Your task to perform on an android device: add a contact in the contacts app Image 0: 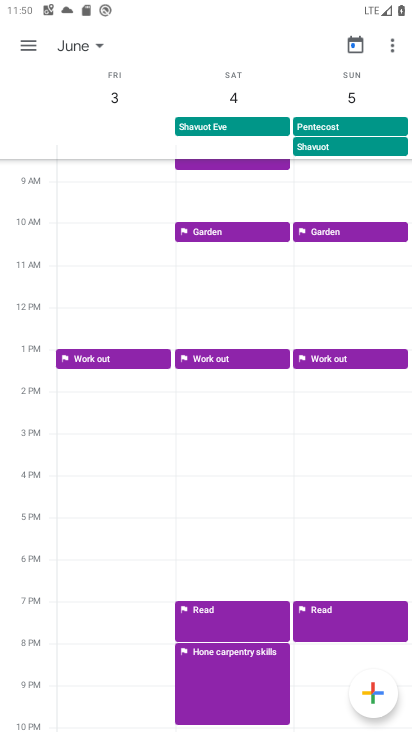
Step 0: press home button
Your task to perform on an android device: add a contact in the contacts app Image 1: 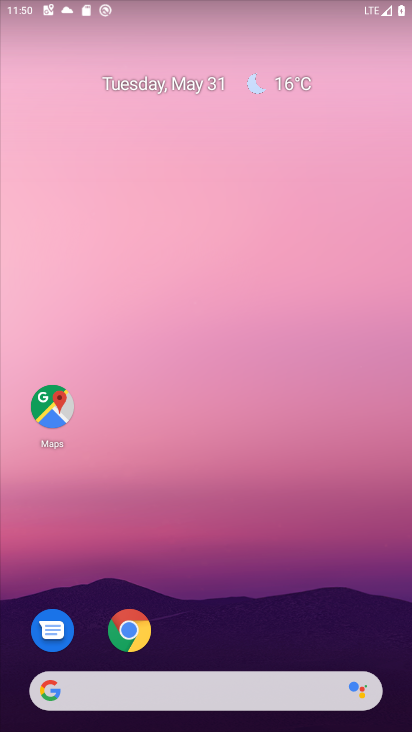
Step 1: drag from (296, 455) to (271, 84)
Your task to perform on an android device: add a contact in the contacts app Image 2: 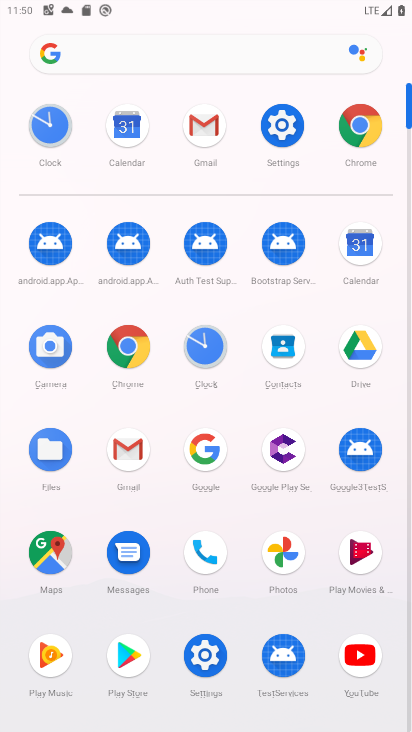
Step 2: click (281, 348)
Your task to perform on an android device: add a contact in the contacts app Image 3: 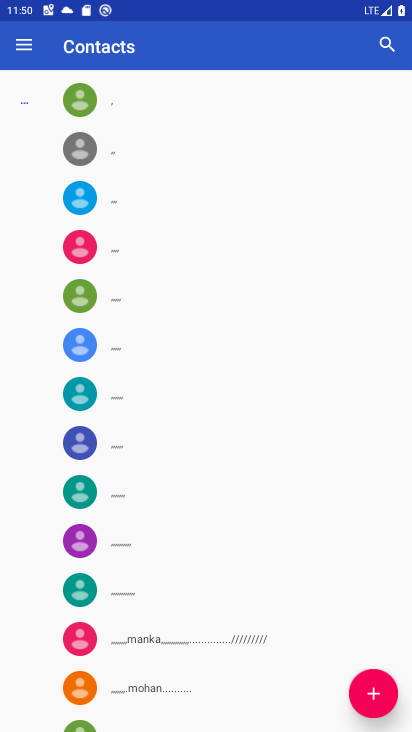
Step 3: click (361, 710)
Your task to perform on an android device: add a contact in the contacts app Image 4: 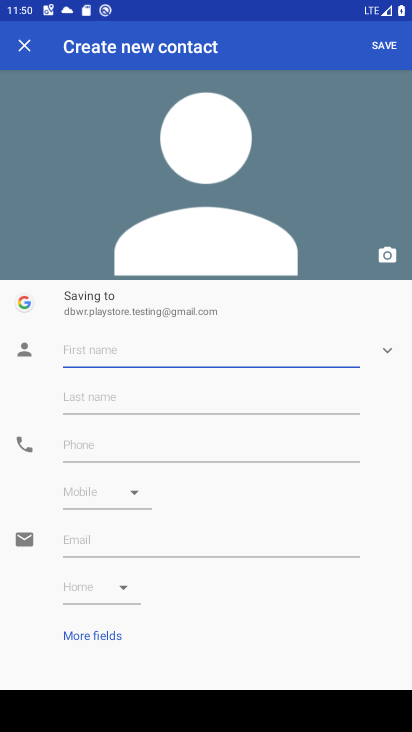
Step 4: click (166, 364)
Your task to perform on an android device: add a contact in the contacts app Image 5: 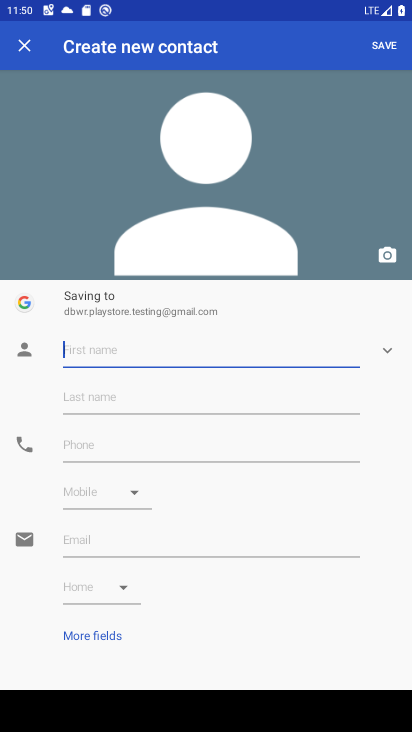
Step 5: click (172, 356)
Your task to perform on an android device: add a contact in the contacts app Image 6: 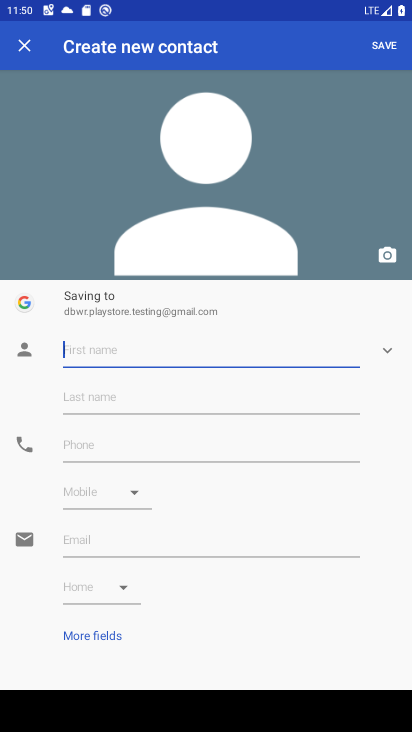
Step 6: type "bench"
Your task to perform on an android device: add a contact in the contacts app Image 7: 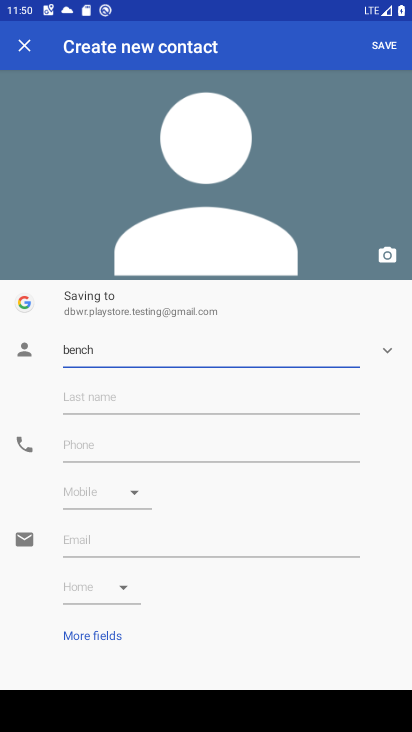
Step 7: click (387, 51)
Your task to perform on an android device: add a contact in the contacts app Image 8: 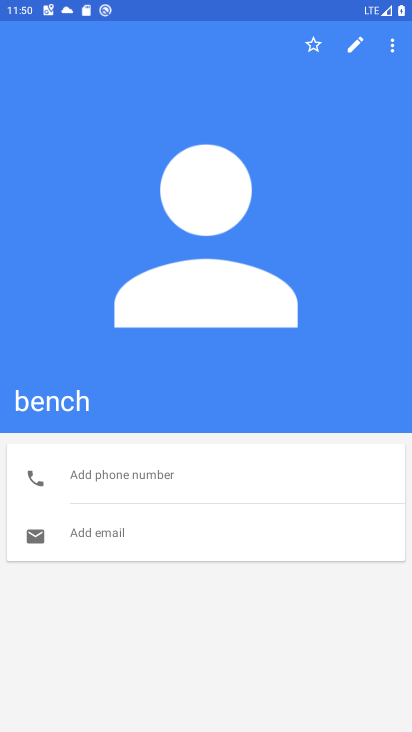
Step 8: task complete